Your task to perform on an android device: Open notification settings Image 0: 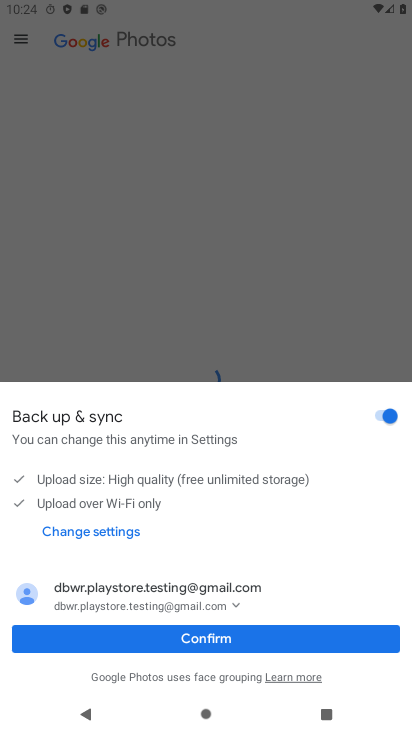
Step 0: press home button
Your task to perform on an android device: Open notification settings Image 1: 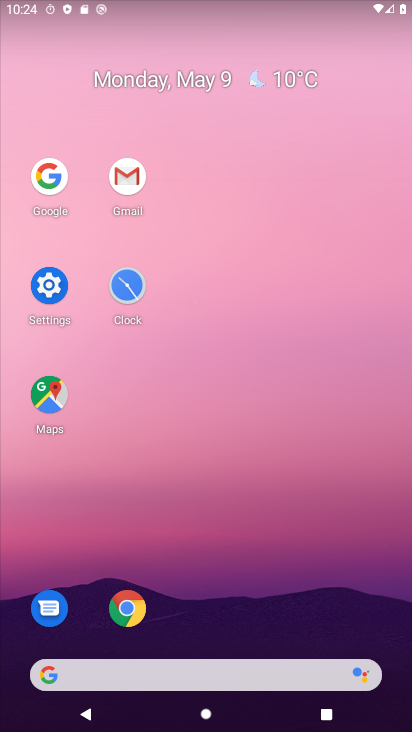
Step 1: click (20, 296)
Your task to perform on an android device: Open notification settings Image 2: 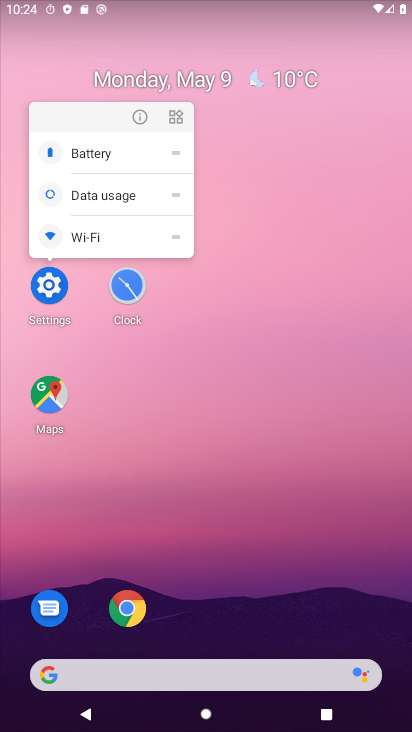
Step 2: click (51, 297)
Your task to perform on an android device: Open notification settings Image 3: 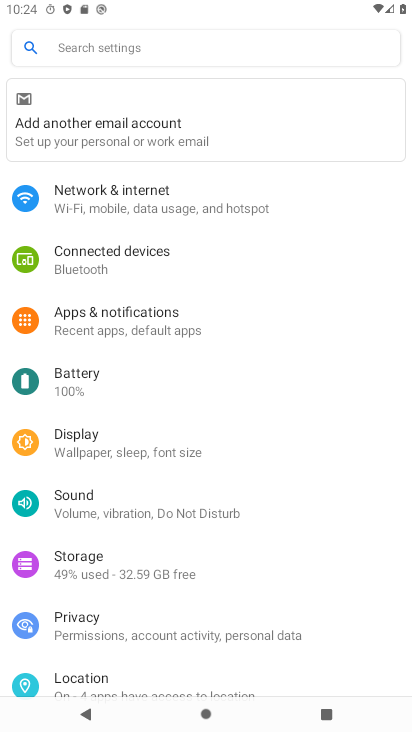
Step 3: click (159, 316)
Your task to perform on an android device: Open notification settings Image 4: 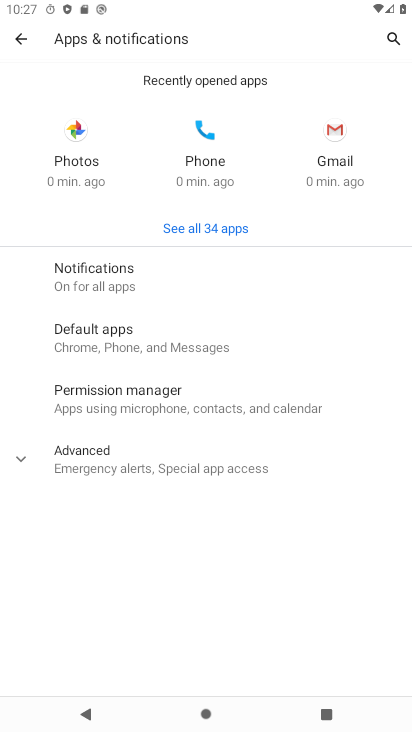
Step 4: task complete